Your task to perform on an android device: see tabs open on other devices in the chrome app Image 0: 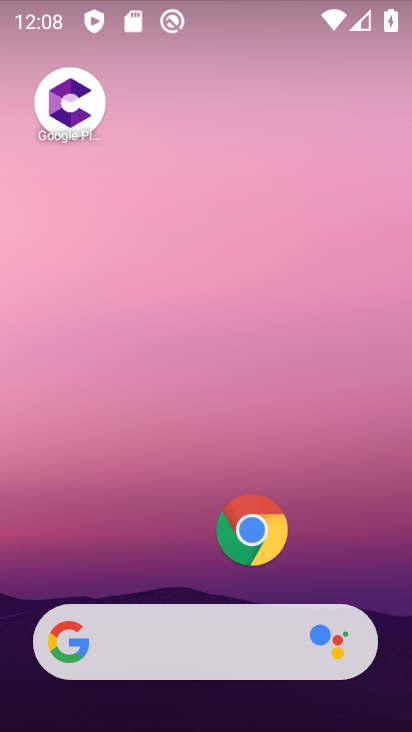
Step 0: click (257, 534)
Your task to perform on an android device: see tabs open on other devices in the chrome app Image 1: 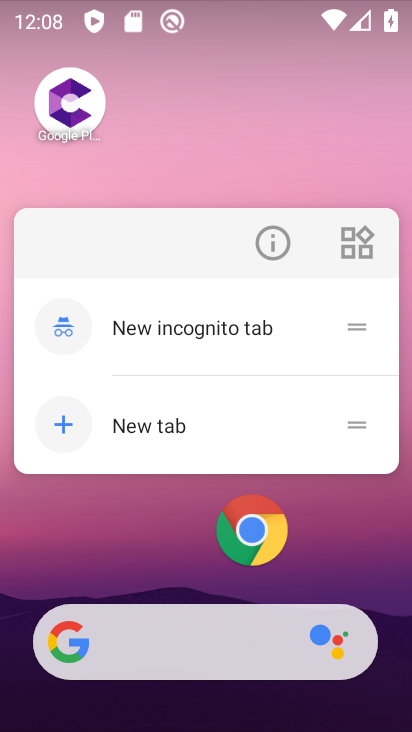
Step 1: click (257, 534)
Your task to perform on an android device: see tabs open on other devices in the chrome app Image 2: 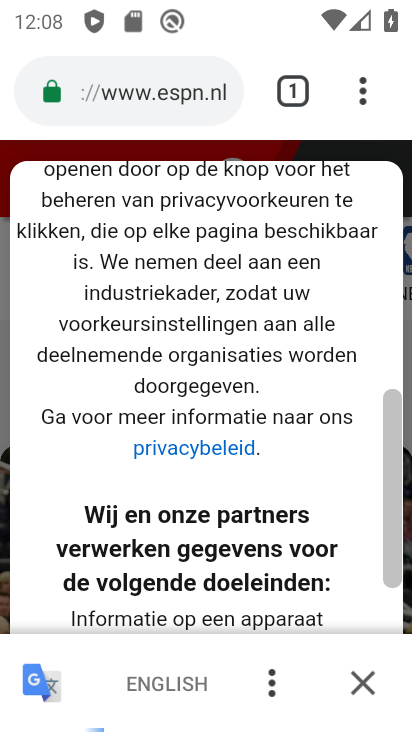
Step 2: task complete